Your task to perform on an android device: toggle improve location accuracy Image 0: 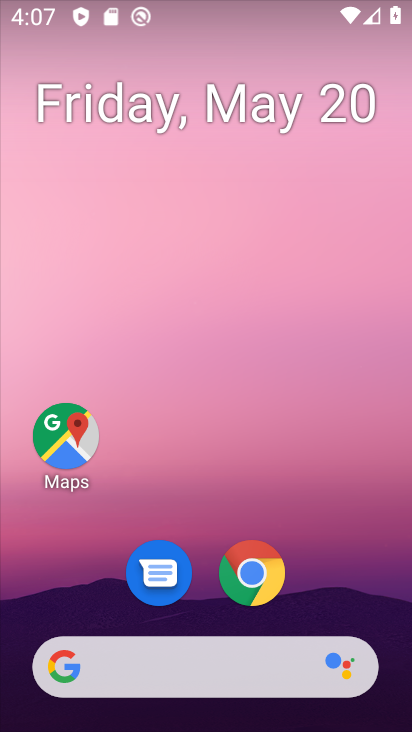
Step 0: drag from (350, 575) to (188, 128)
Your task to perform on an android device: toggle improve location accuracy Image 1: 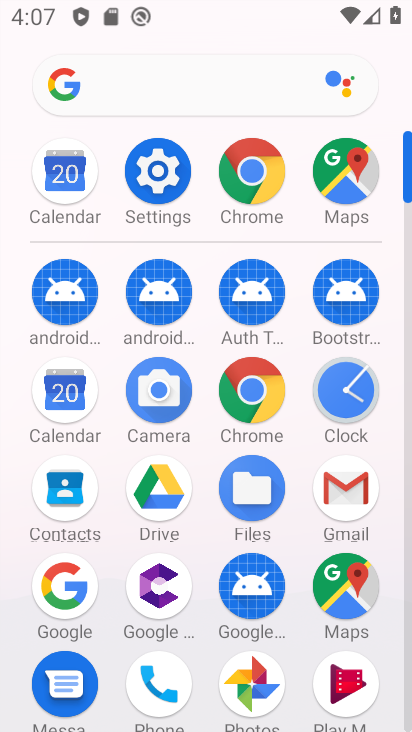
Step 1: click (163, 169)
Your task to perform on an android device: toggle improve location accuracy Image 2: 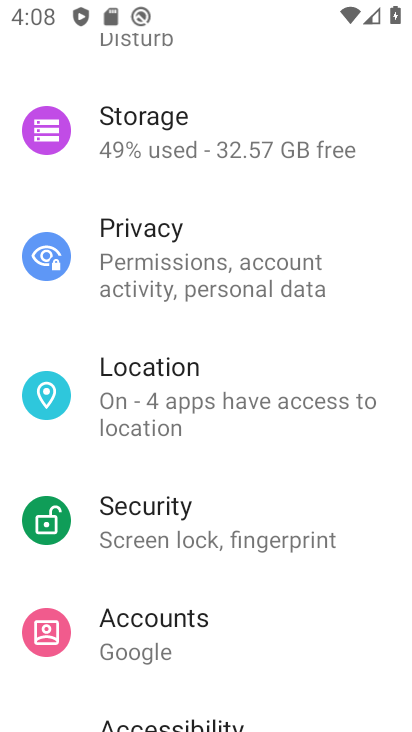
Step 2: press home button
Your task to perform on an android device: toggle improve location accuracy Image 3: 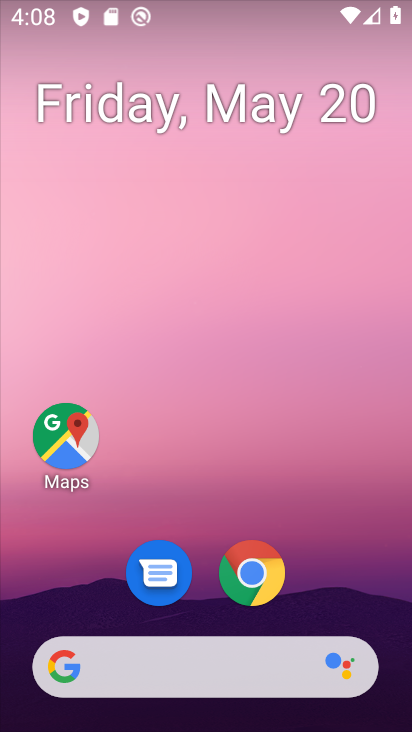
Step 3: drag from (365, 593) to (252, 126)
Your task to perform on an android device: toggle improve location accuracy Image 4: 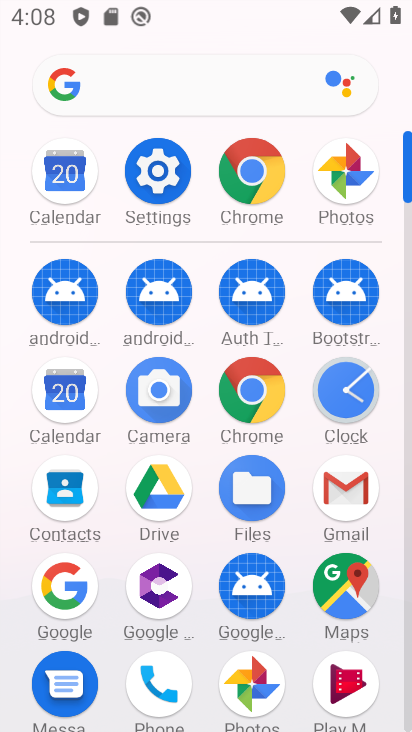
Step 4: click (163, 154)
Your task to perform on an android device: toggle improve location accuracy Image 5: 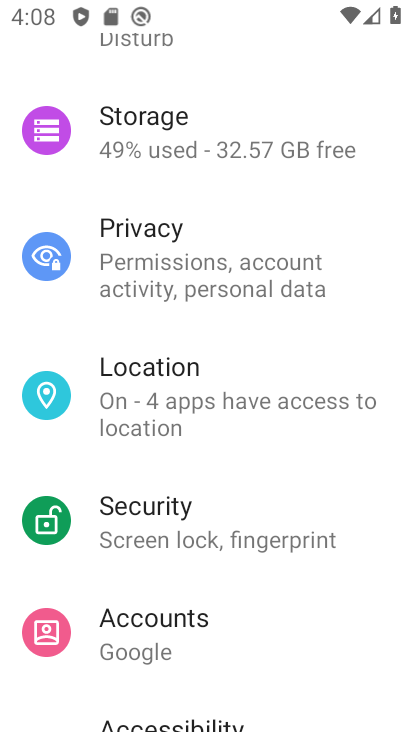
Step 5: click (224, 400)
Your task to perform on an android device: toggle improve location accuracy Image 6: 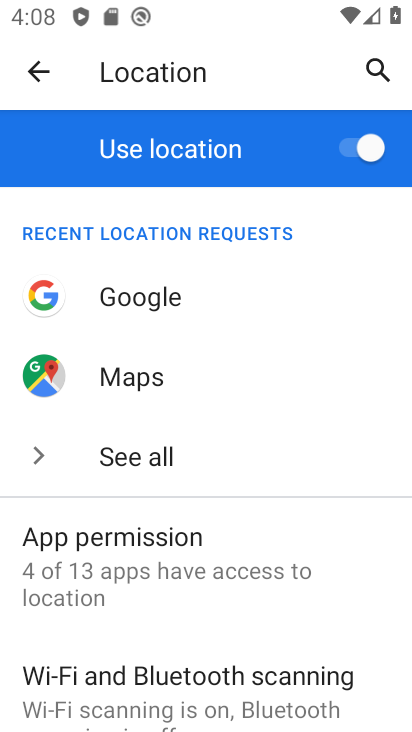
Step 6: drag from (292, 670) to (248, 301)
Your task to perform on an android device: toggle improve location accuracy Image 7: 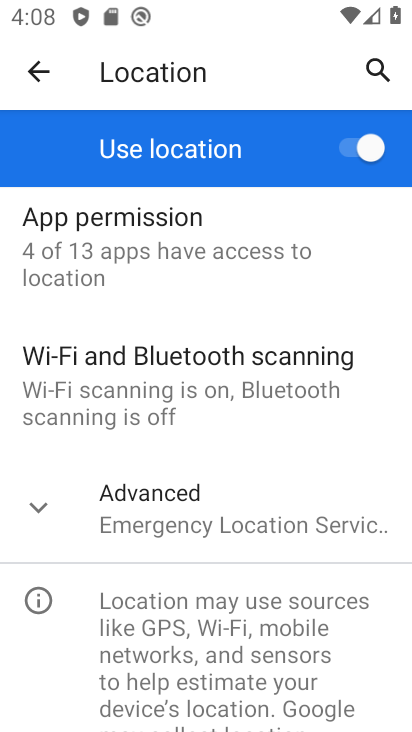
Step 7: click (266, 501)
Your task to perform on an android device: toggle improve location accuracy Image 8: 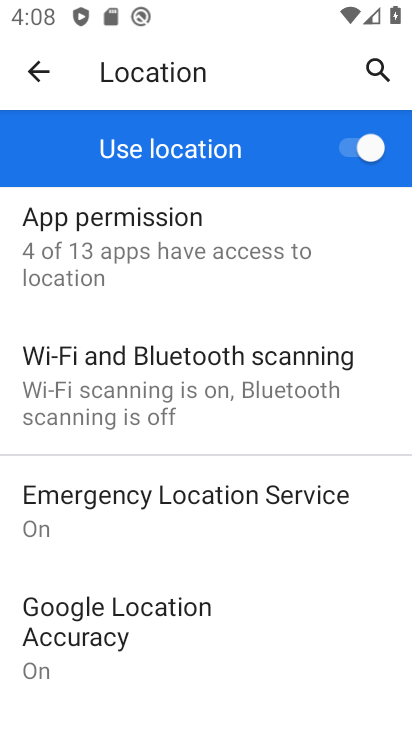
Step 8: drag from (297, 674) to (232, 348)
Your task to perform on an android device: toggle improve location accuracy Image 9: 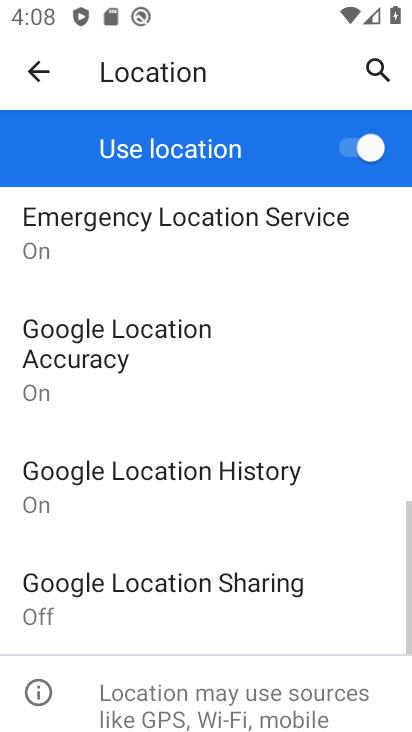
Step 9: click (232, 353)
Your task to perform on an android device: toggle improve location accuracy Image 10: 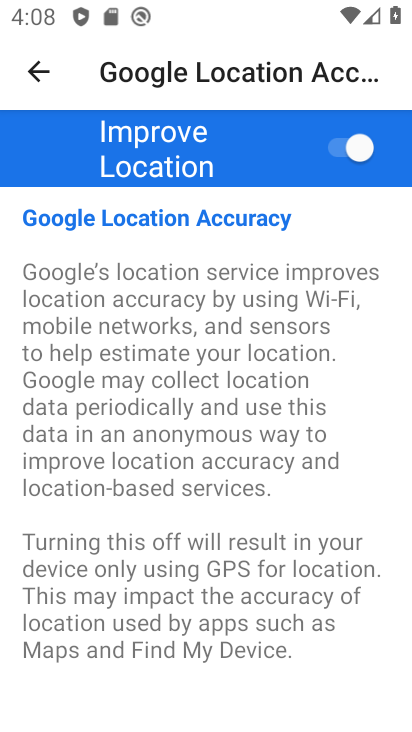
Step 10: click (331, 157)
Your task to perform on an android device: toggle improve location accuracy Image 11: 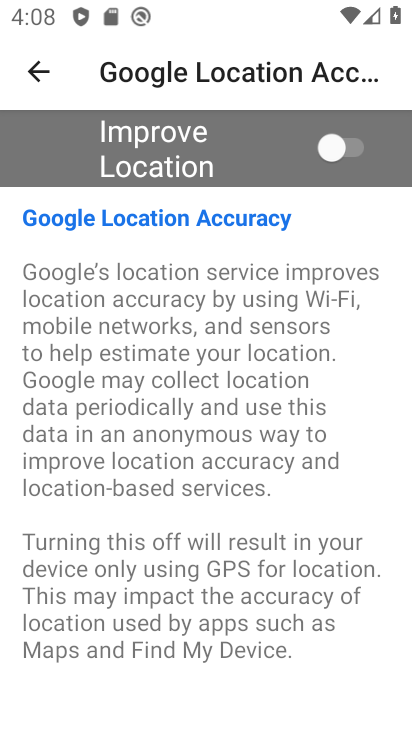
Step 11: task complete